Your task to perform on an android device: install app "VLC for Android" Image 0: 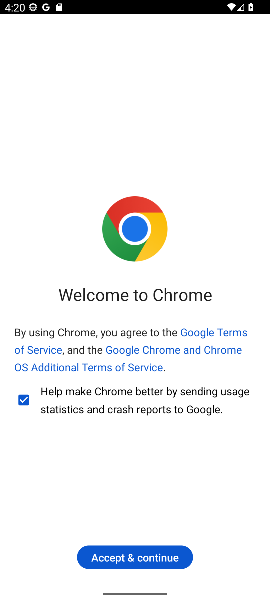
Step 0: press back button
Your task to perform on an android device: install app "VLC for Android" Image 1: 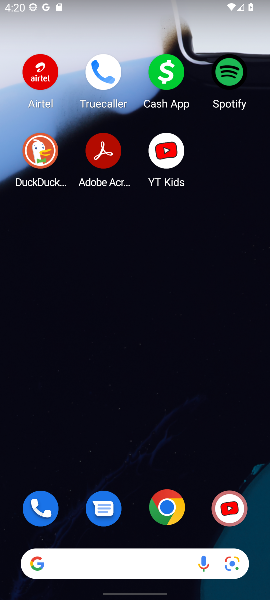
Step 1: press home button
Your task to perform on an android device: install app "VLC for Android" Image 2: 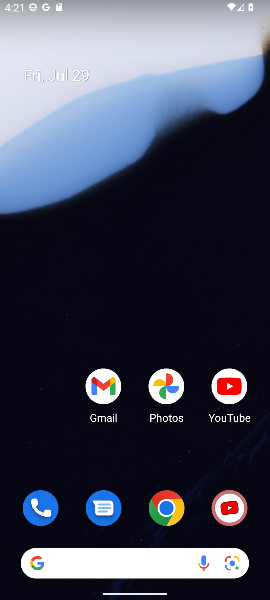
Step 2: drag from (199, 447) to (141, 58)
Your task to perform on an android device: install app "VLC for Android" Image 3: 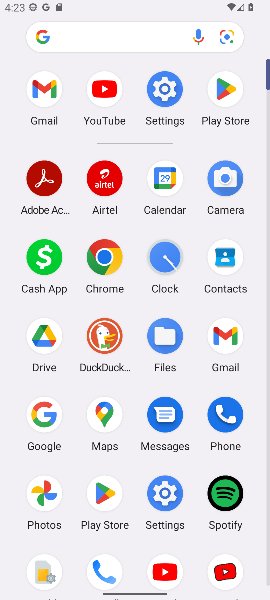
Step 3: click (231, 100)
Your task to perform on an android device: install app "VLC for Android" Image 4: 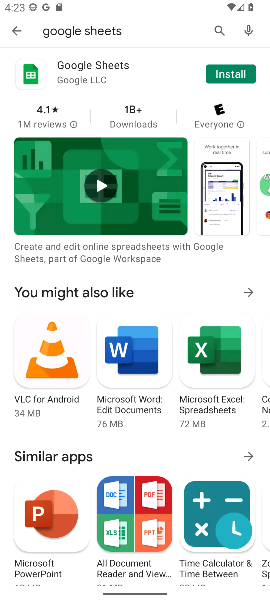
Step 4: press back button
Your task to perform on an android device: install app "VLC for Android" Image 5: 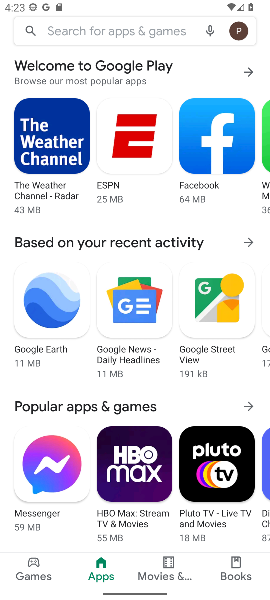
Step 5: click (85, 40)
Your task to perform on an android device: install app "VLC for Android" Image 6: 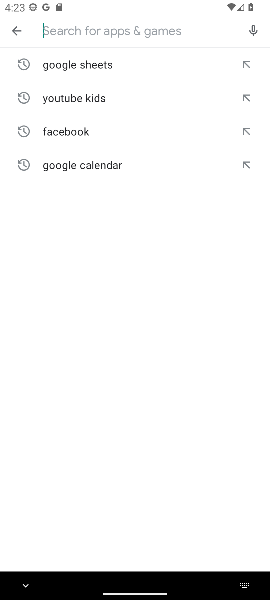
Step 6: type "VLC for Android"
Your task to perform on an android device: install app "VLC for Android" Image 7: 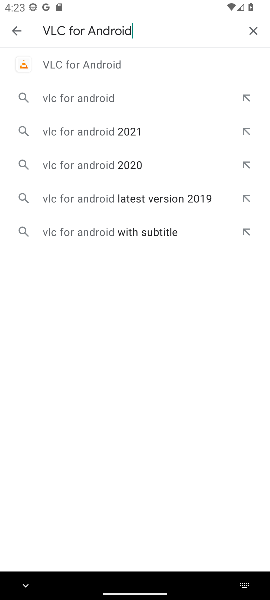
Step 7: click (95, 69)
Your task to perform on an android device: install app "VLC for Android" Image 8: 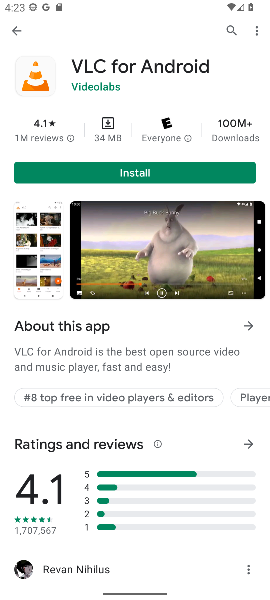
Step 8: click (104, 165)
Your task to perform on an android device: install app "VLC for Android" Image 9: 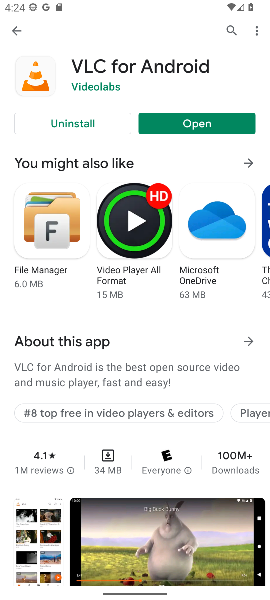
Step 9: task complete